Your task to perform on an android device: See recent photos Image 0: 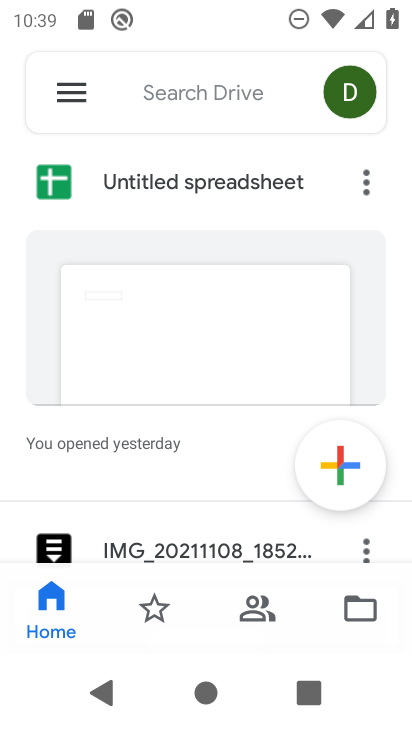
Step 0: press home button
Your task to perform on an android device: See recent photos Image 1: 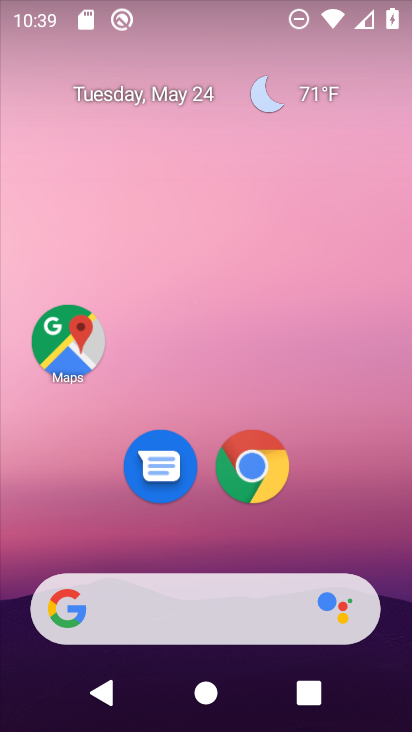
Step 1: drag from (181, 530) to (190, 0)
Your task to perform on an android device: See recent photos Image 2: 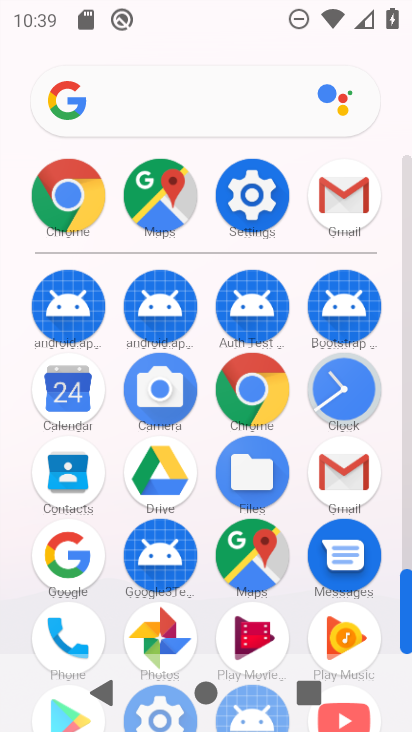
Step 2: drag from (178, 526) to (217, 223)
Your task to perform on an android device: See recent photos Image 3: 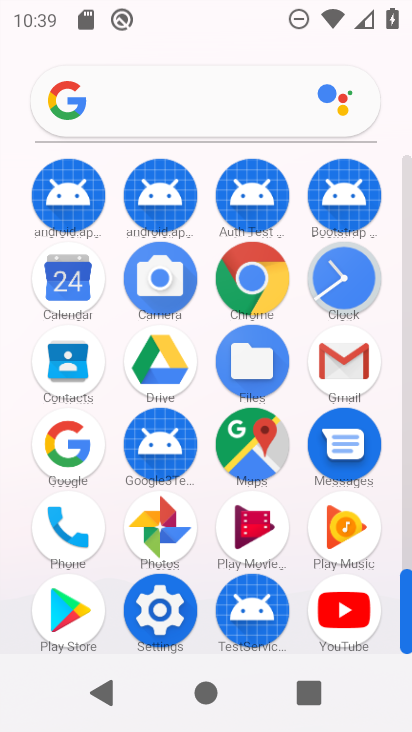
Step 3: click (177, 532)
Your task to perform on an android device: See recent photos Image 4: 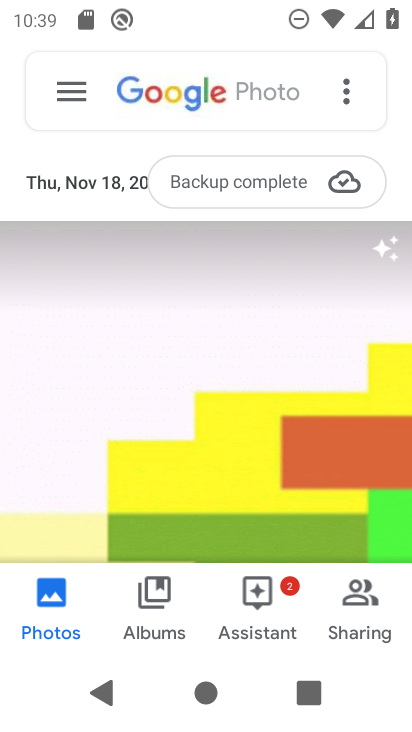
Step 4: drag from (197, 446) to (270, 51)
Your task to perform on an android device: See recent photos Image 5: 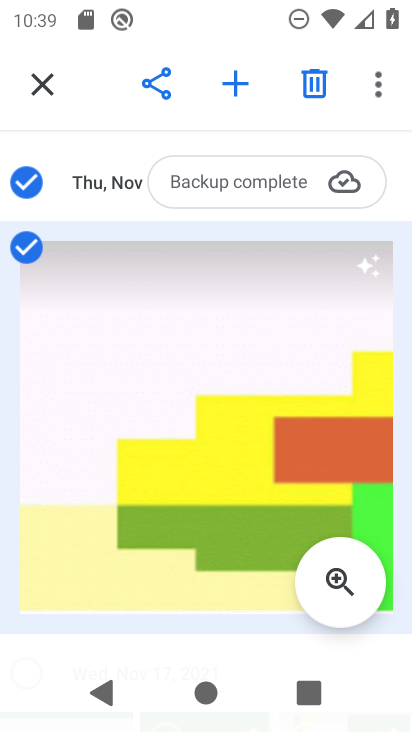
Step 5: drag from (229, 378) to (317, 9)
Your task to perform on an android device: See recent photos Image 6: 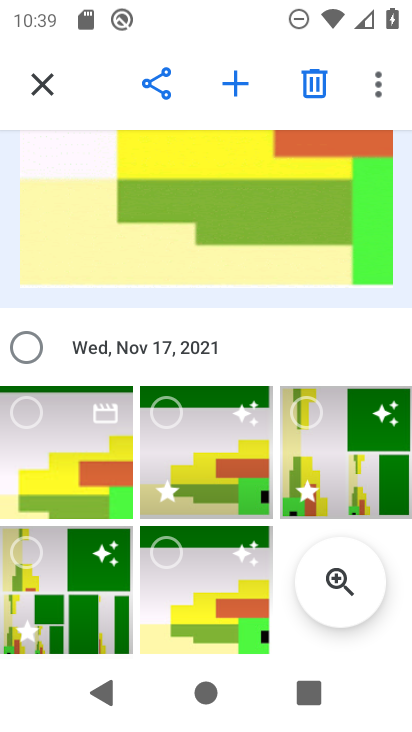
Step 6: drag from (98, 575) to (107, 342)
Your task to perform on an android device: See recent photos Image 7: 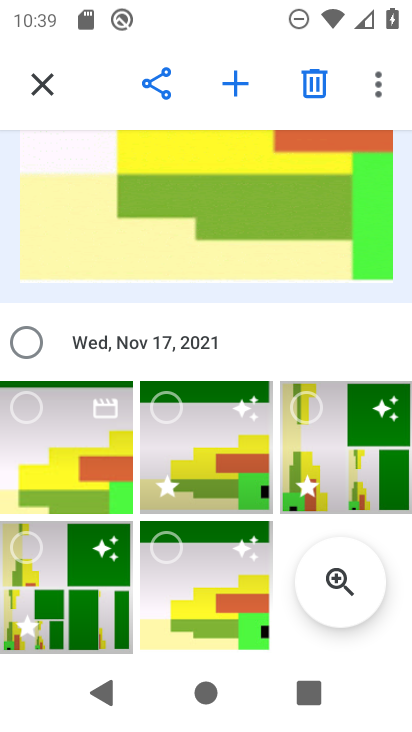
Step 7: click (33, 78)
Your task to perform on an android device: See recent photos Image 8: 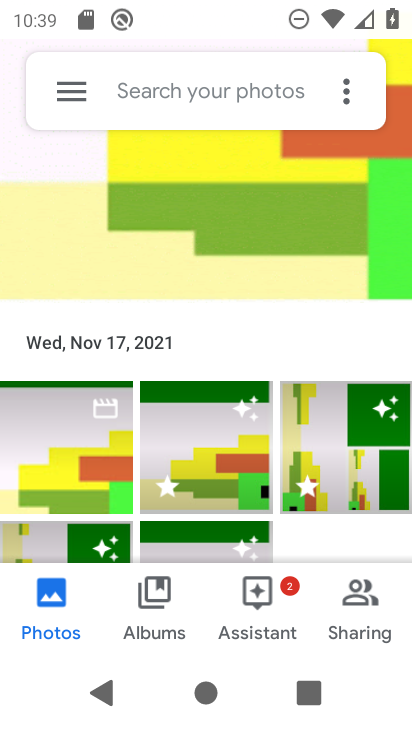
Step 8: task complete